Your task to perform on an android device: turn off translation in the chrome app Image 0: 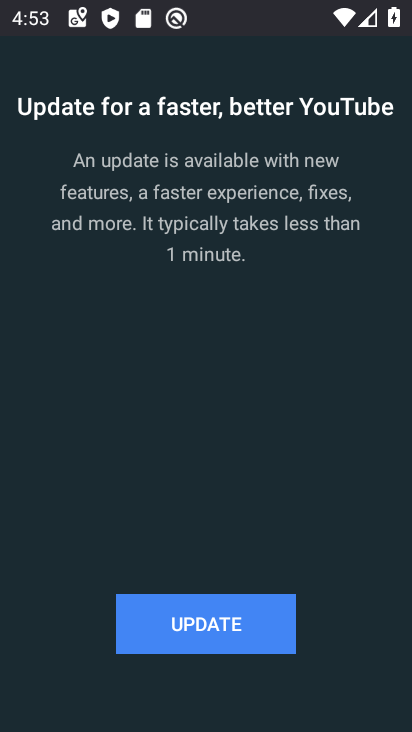
Step 0: press back button
Your task to perform on an android device: turn off translation in the chrome app Image 1: 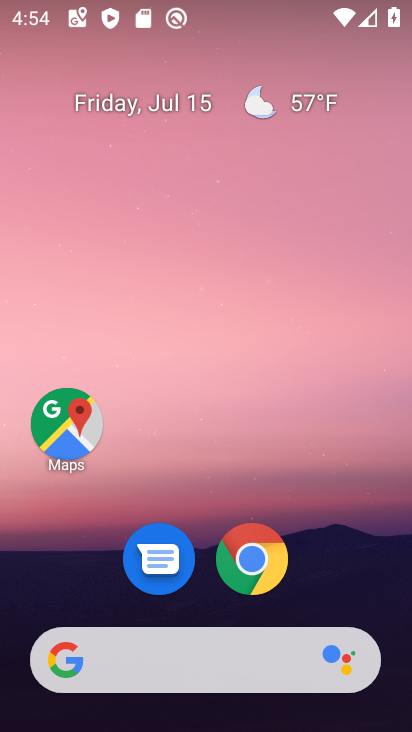
Step 1: drag from (101, 597) to (245, 3)
Your task to perform on an android device: turn off translation in the chrome app Image 2: 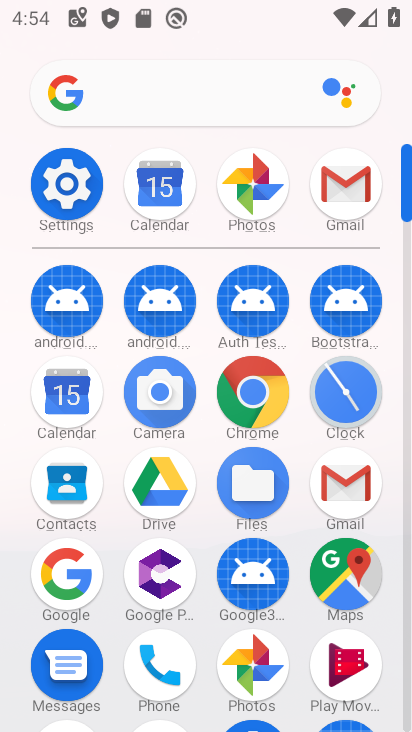
Step 2: click (262, 391)
Your task to perform on an android device: turn off translation in the chrome app Image 3: 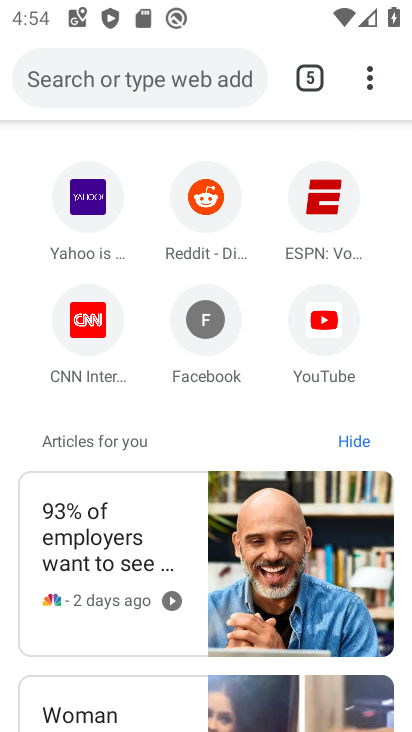
Step 3: drag from (378, 57) to (179, 599)
Your task to perform on an android device: turn off translation in the chrome app Image 4: 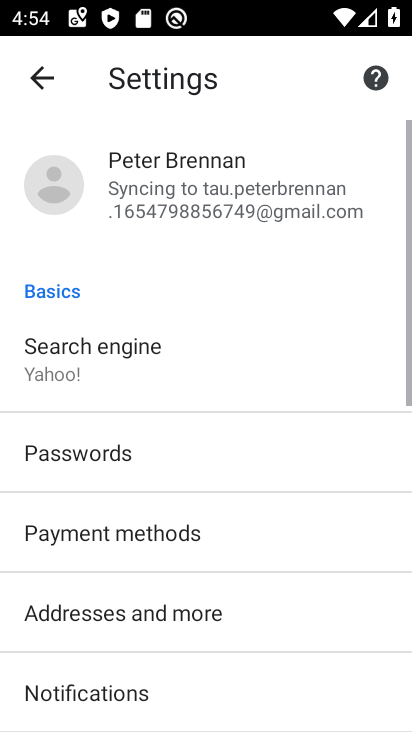
Step 4: drag from (184, 597) to (253, 80)
Your task to perform on an android device: turn off translation in the chrome app Image 5: 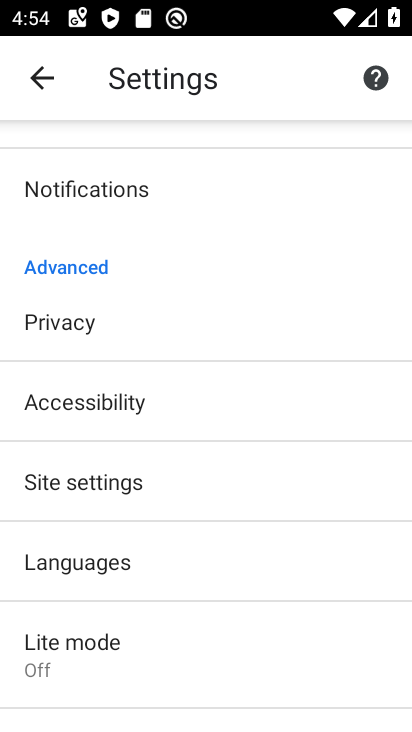
Step 5: click (108, 563)
Your task to perform on an android device: turn off translation in the chrome app Image 6: 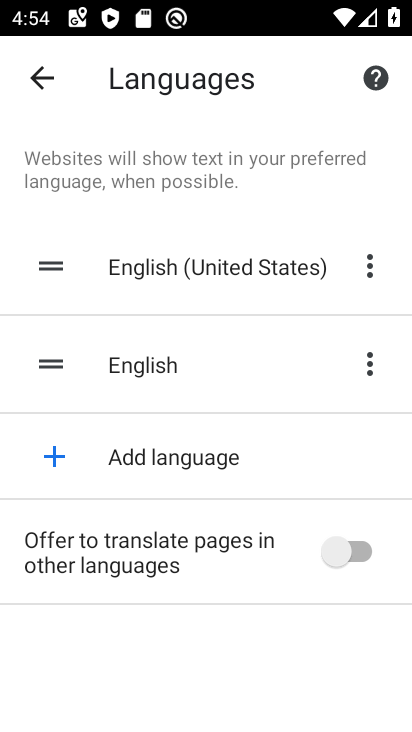
Step 6: task complete